Your task to perform on an android device: Open settings on Google Maps Image 0: 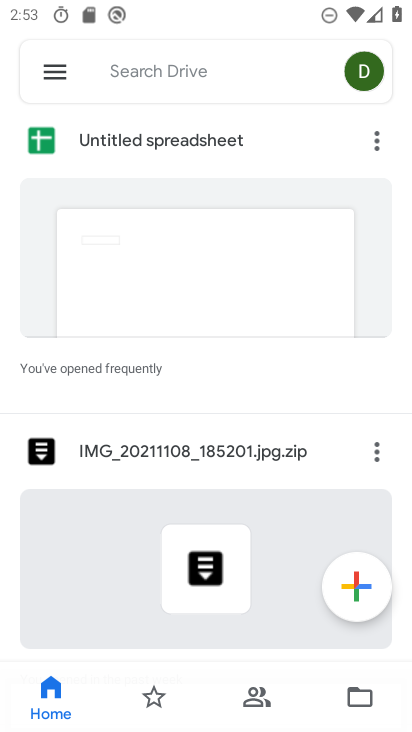
Step 0: press home button
Your task to perform on an android device: Open settings on Google Maps Image 1: 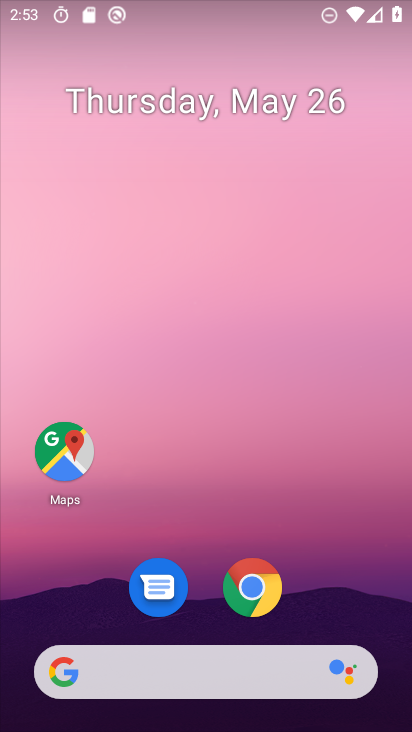
Step 1: click (62, 444)
Your task to perform on an android device: Open settings on Google Maps Image 2: 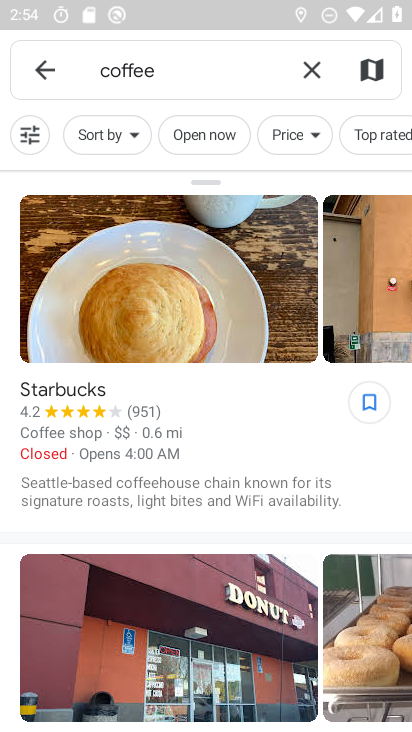
Step 2: click (45, 70)
Your task to perform on an android device: Open settings on Google Maps Image 3: 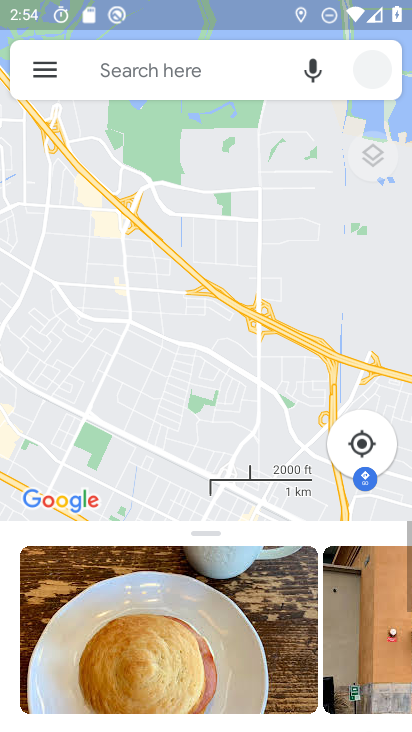
Step 3: click (46, 69)
Your task to perform on an android device: Open settings on Google Maps Image 4: 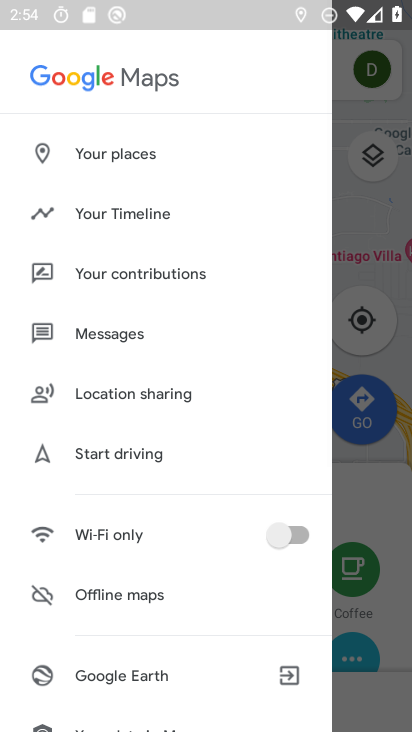
Step 4: drag from (177, 625) to (171, 195)
Your task to perform on an android device: Open settings on Google Maps Image 5: 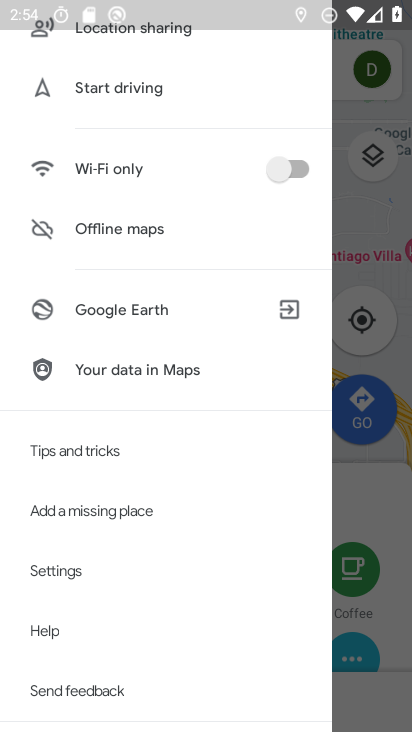
Step 5: click (89, 572)
Your task to perform on an android device: Open settings on Google Maps Image 6: 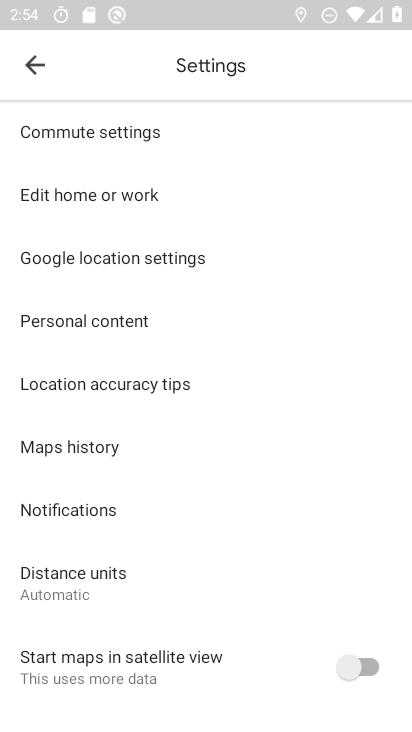
Step 6: task complete